Your task to perform on an android device: Toggle the flashlight Image 0: 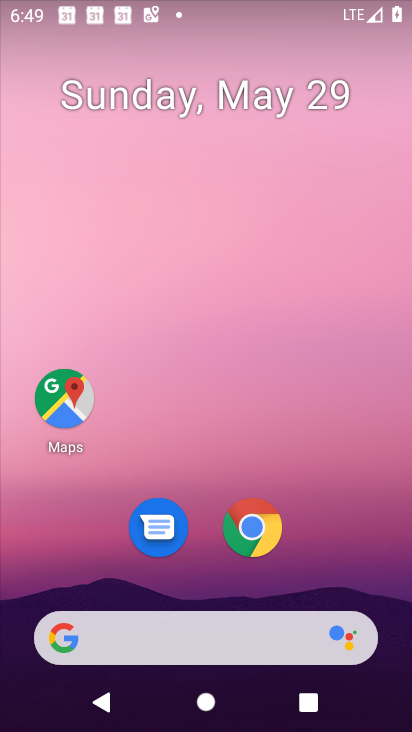
Step 0: drag from (361, 537) to (228, 68)
Your task to perform on an android device: Toggle the flashlight Image 1: 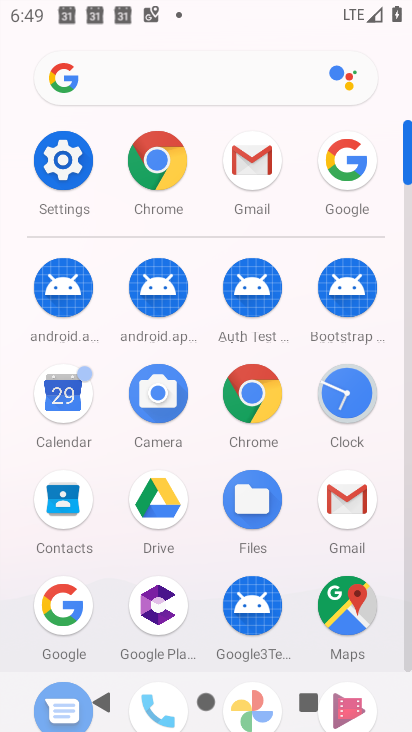
Step 1: click (53, 156)
Your task to perform on an android device: Toggle the flashlight Image 2: 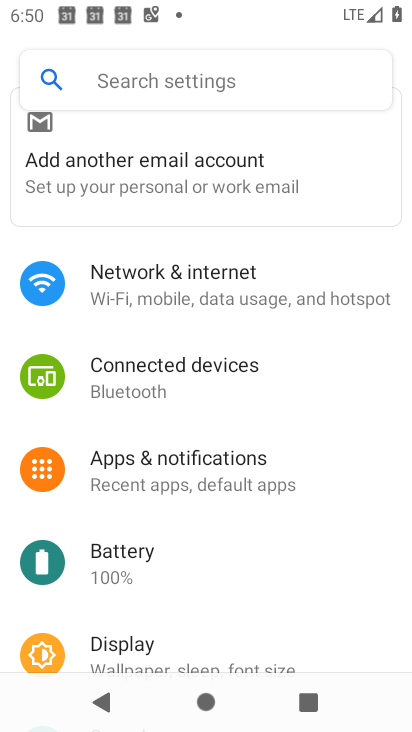
Step 2: task complete